Your task to perform on an android device: add a label to a message in the gmail app Image 0: 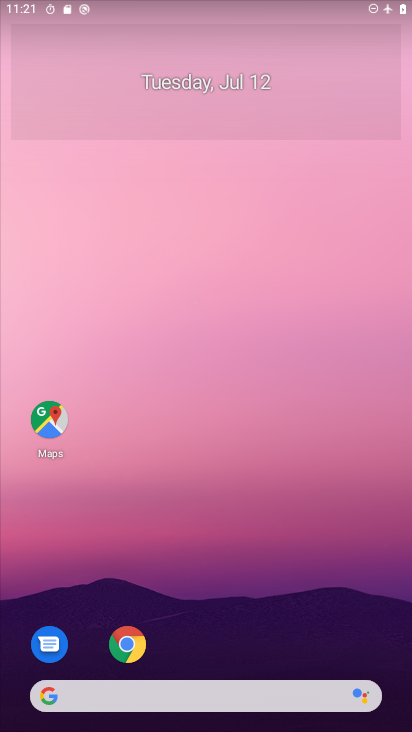
Step 0: drag from (204, 660) to (209, 298)
Your task to perform on an android device: add a label to a message in the gmail app Image 1: 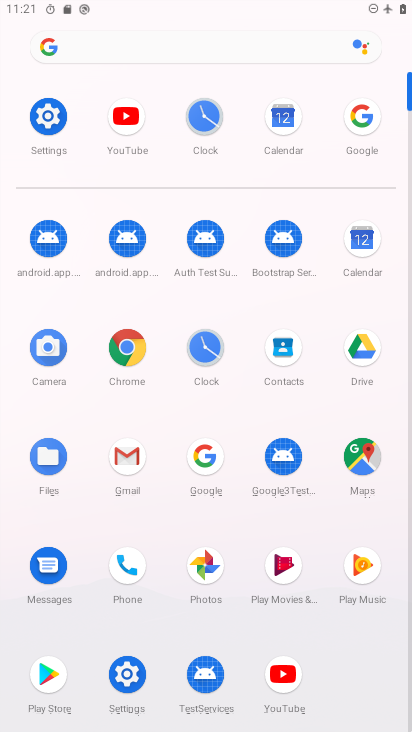
Step 1: click (126, 459)
Your task to perform on an android device: add a label to a message in the gmail app Image 2: 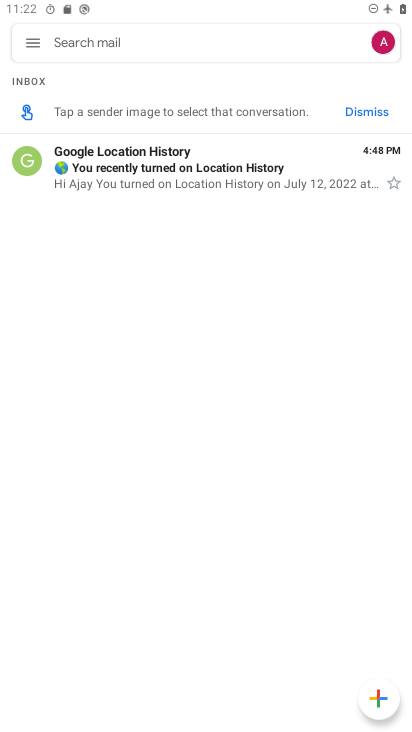
Step 2: click (158, 167)
Your task to perform on an android device: add a label to a message in the gmail app Image 3: 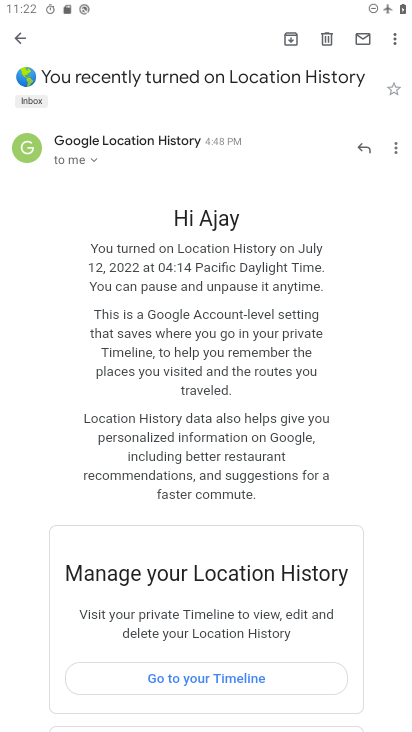
Step 3: click (392, 35)
Your task to perform on an android device: add a label to a message in the gmail app Image 4: 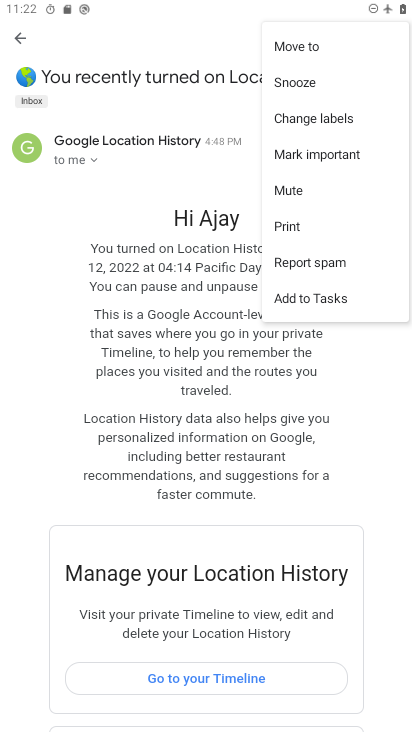
Step 4: click (302, 44)
Your task to perform on an android device: add a label to a message in the gmail app Image 5: 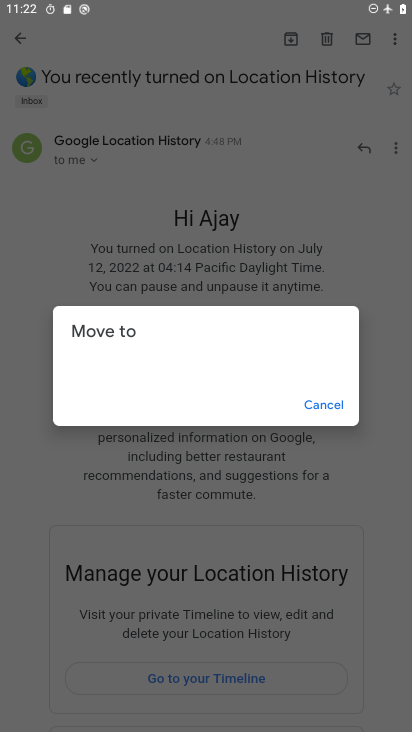
Step 5: click (198, 391)
Your task to perform on an android device: add a label to a message in the gmail app Image 6: 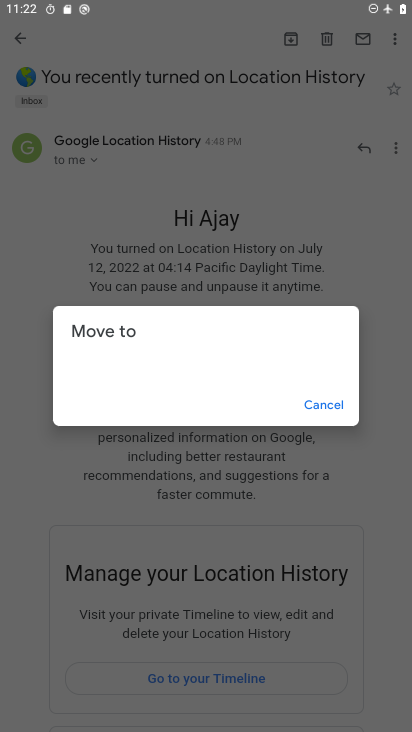
Step 6: click (332, 403)
Your task to perform on an android device: add a label to a message in the gmail app Image 7: 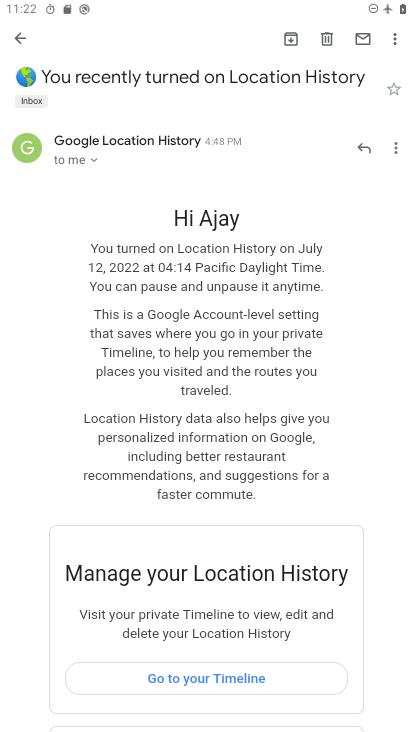
Step 7: task complete